Your task to perform on an android device: Open Amazon Image 0: 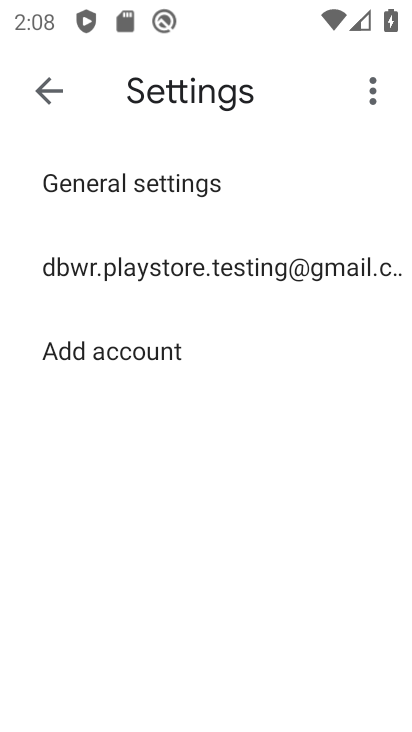
Step 0: drag from (180, 603) to (168, 471)
Your task to perform on an android device: Open Amazon Image 1: 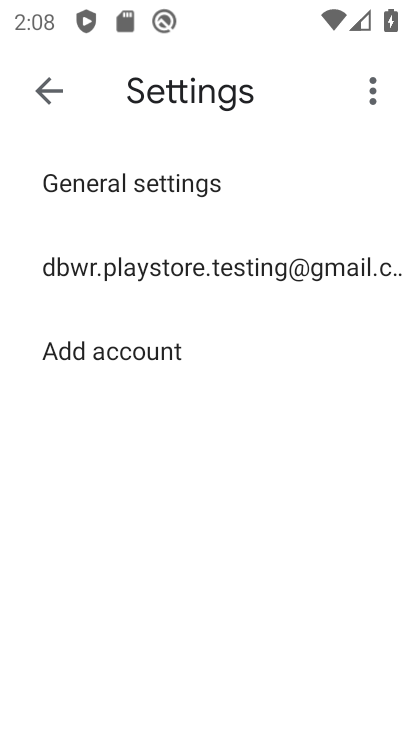
Step 1: press home button
Your task to perform on an android device: Open Amazon Image 2: 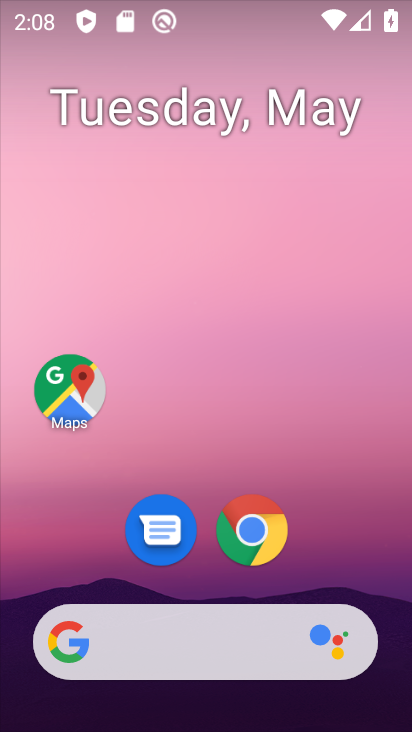
Step 2: click (232, 514)
Your task to perform on an android device: Open Amazon Image 3: 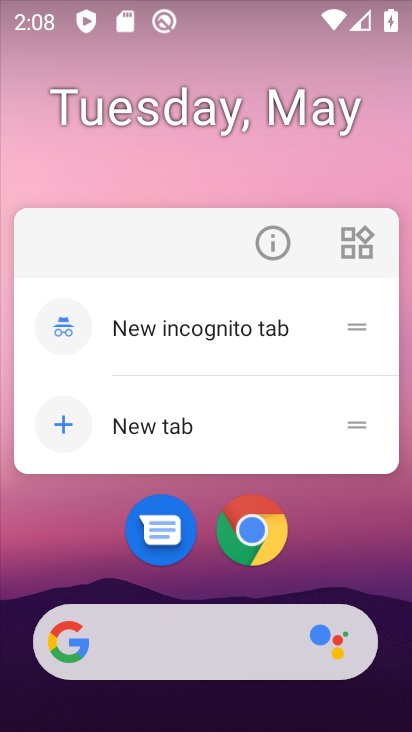
Step 3: click (261, 508)
Your task to perform on an android device: Open Amazon Image 4: 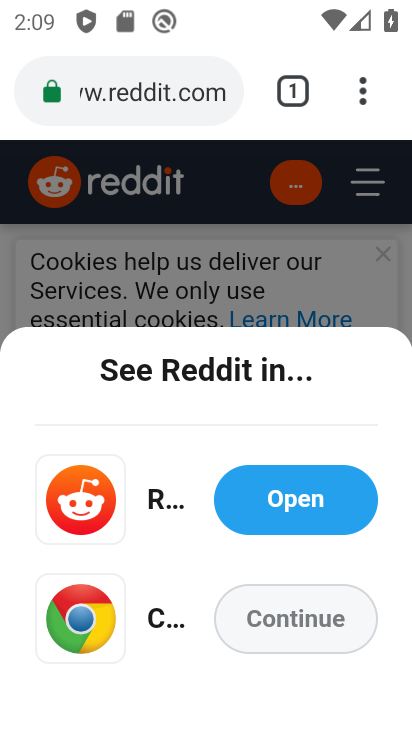
Step 4: click (274, 607)
Your task to perform on an android device: Open Amazon Image 5: 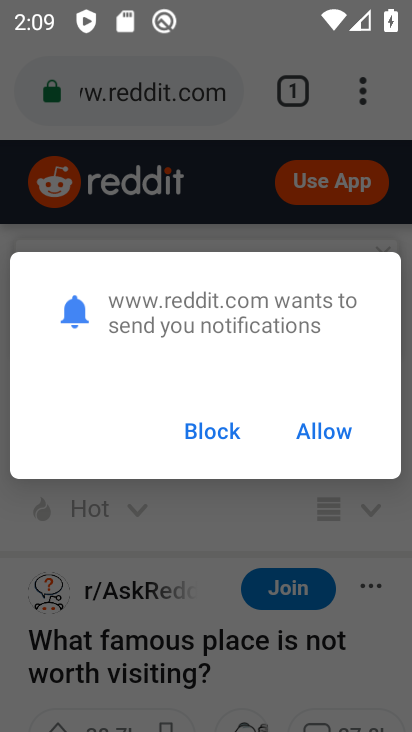
Step 5: click (309, 437)
Your task to perform on an android device: Open Amazon Image 6: 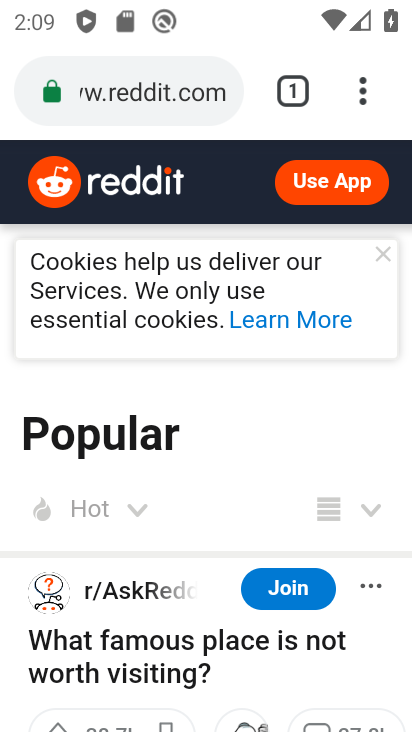
Step 6: click (275, 90)
Your task to perform on an android device: Open Amazon Image 7: 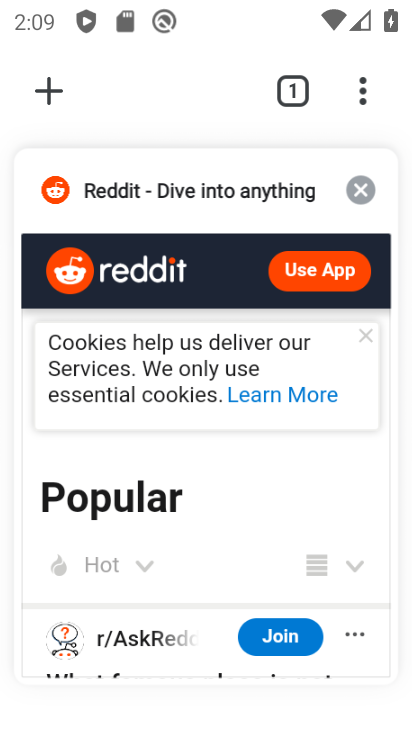
Step 7: click (54, 94)
Your task to perform on an android device: Open Amazon Image 8: 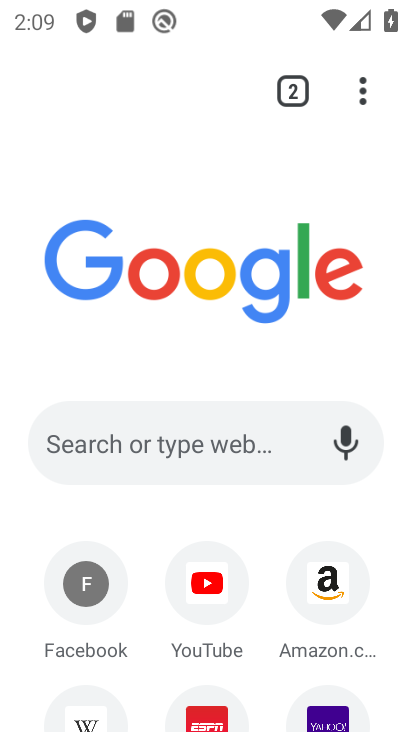
Step 8: click (346, 596)
Your task to perform on an android device: Open Amazon Image 9: 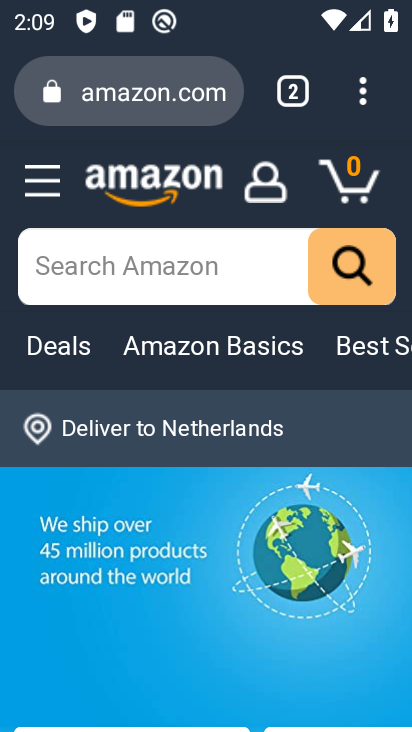
Step 9: task complete